Your task to perform on an android device: stop showing notifications on the lock screen Image 0: 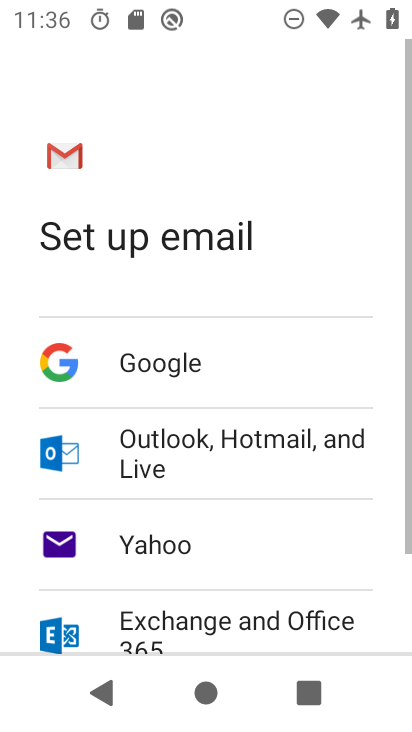
Step 0: press home button
Your task to perform on an android device: stop showing notifications on the lock screen Image 1: 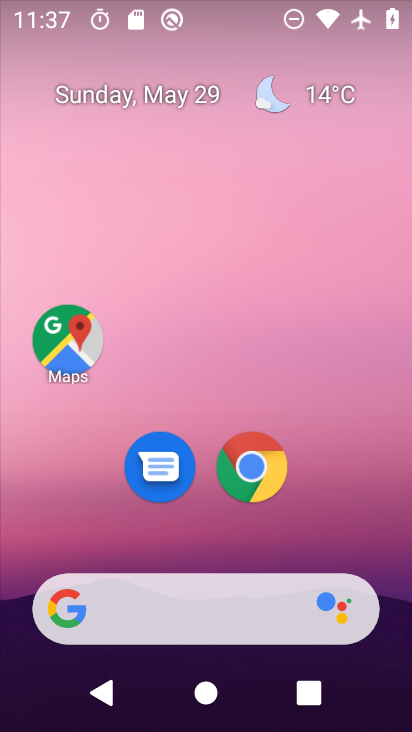
Step 1: drag from (214, 537) to (191, 100)
Your task to perform on an android device: stop showing notifications on the lock screen Image 2: 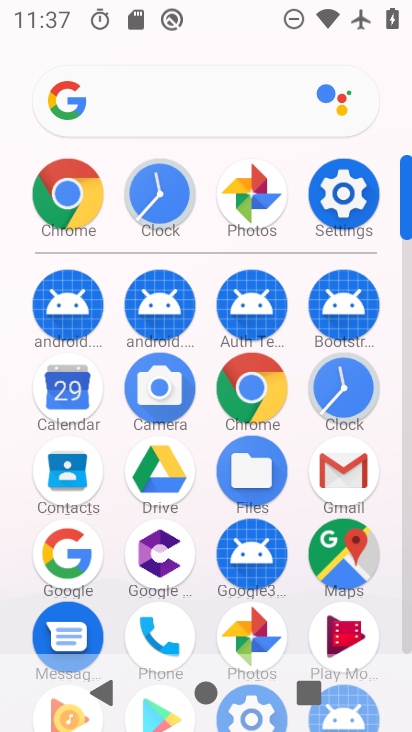
Step 2: click (322, 191)
Your task to perform on an android device: stop showing notifications on the lock screen Image 3: 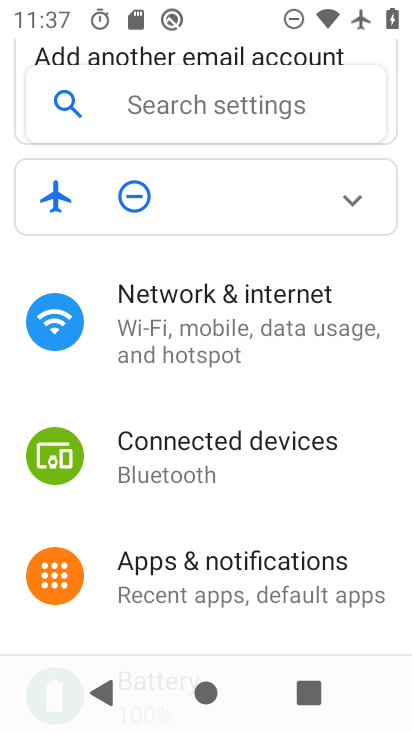
Step 3: click (209, 554)
Your task to perform on an android device: stop showing notifications on the lock screen Image 4: 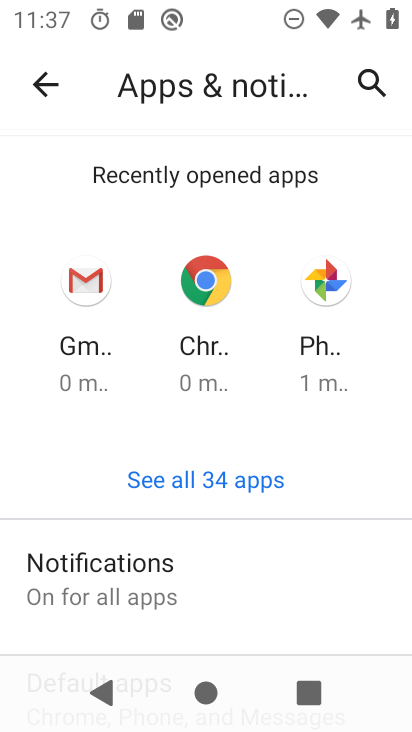
Step 4: drag from (243, 592) to (256, 429)
Your task to perform on an android device: stop showing notifications on the lock screen Image 5: 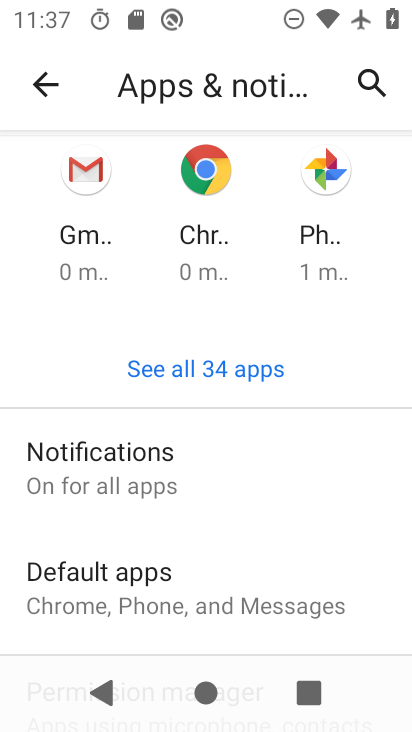
Step 5: click (171, 491)
Your task to perform on an android device: stop showing notifications on the lock screen Image 6: 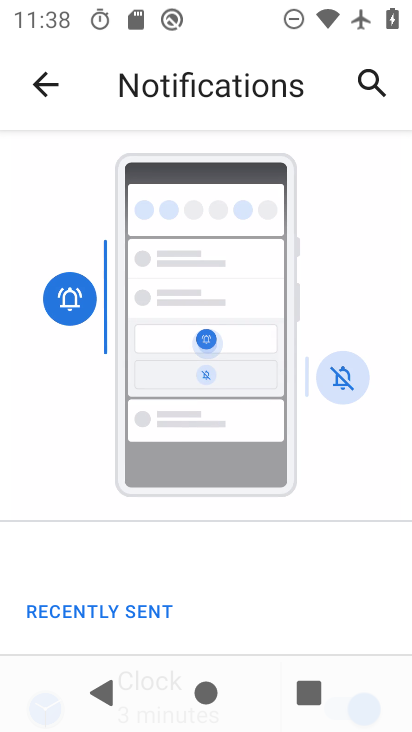
Step 6: drag from (135, 627) to (127, 306)
Your task to perform on an android device: stop showing notifications on the lock screen Image 7: 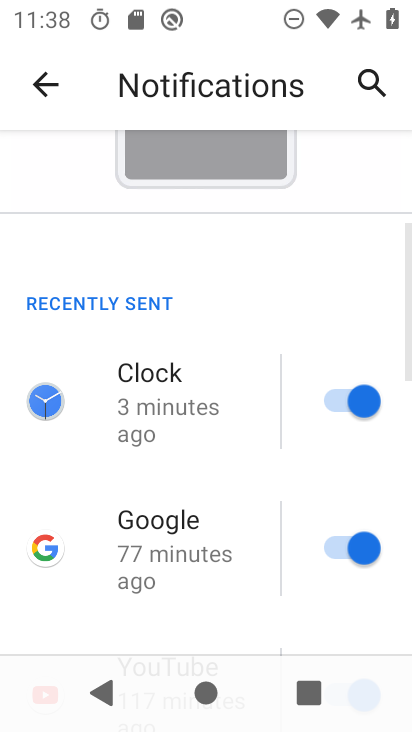
Step 7: drag from (167, 628) to (167, 299)
Your task to perform on an android device: stop showing notifications on the lock screen Image 8: 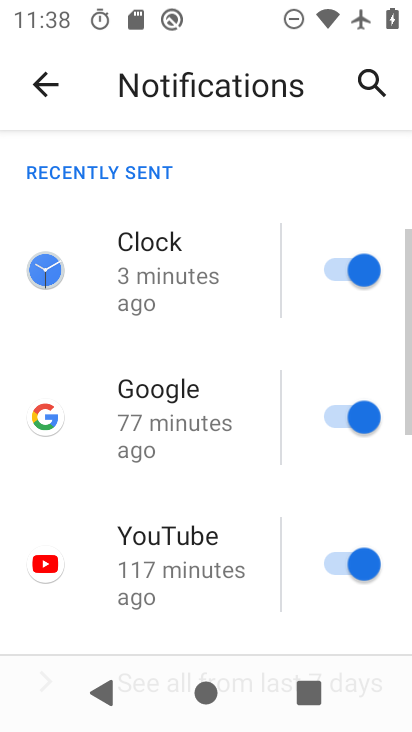
Step 8: drag from (246, 574) to (221, 286)
Your task to perform on an android device: stop showing notifications on the lock screen Image 9: 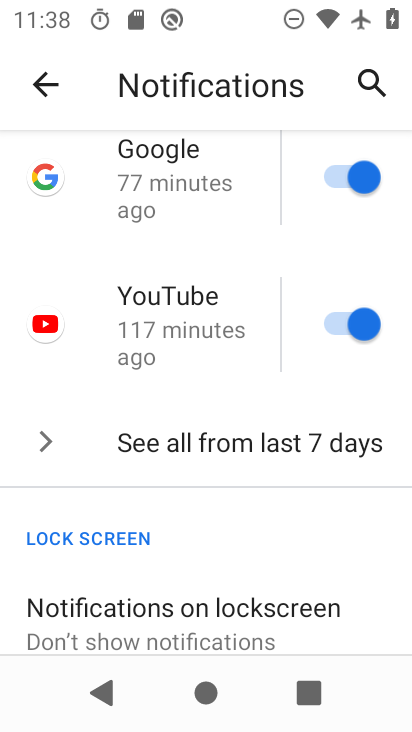
Step 9: drag from (188, 541) to (169, 313)
Your task to perform on an android device: stop showing notifications on the lock screen Image 10: 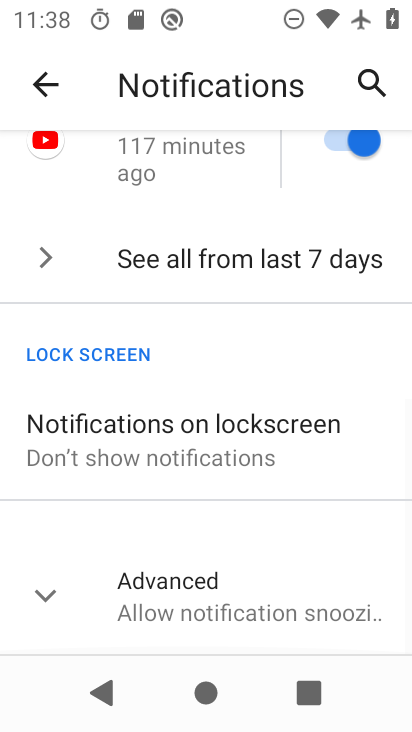
Step 10: click (182, 405)
Your task to perform on an android device: stop showing notifications on the lock screen Image 11: 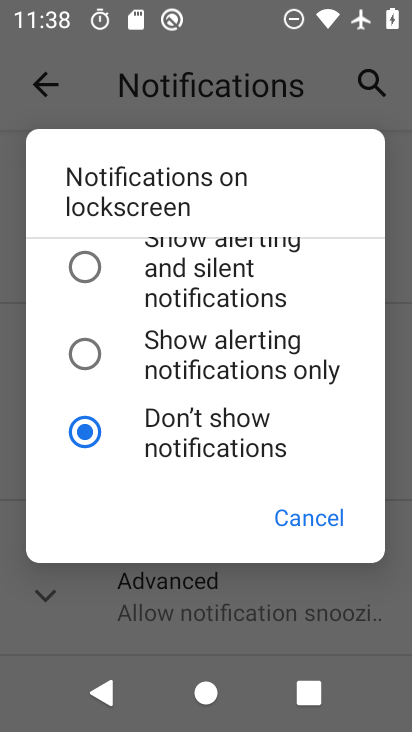
Step 11: task complete